Your task to perform on an android device: Search for Mexican restaurants on Maps Image 0: 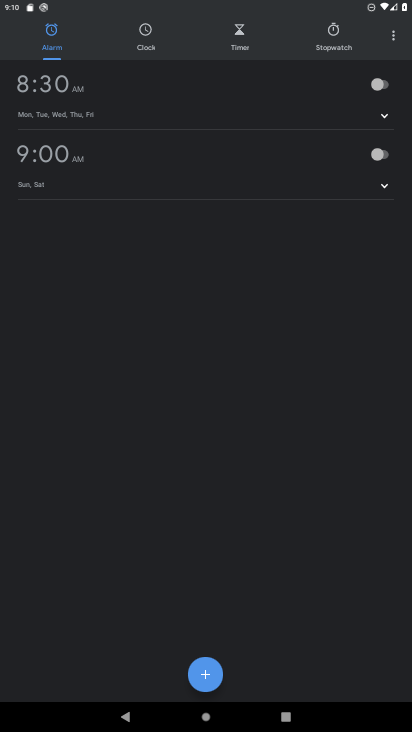
Step 0: press home button
Your task to perform on an android device: Search for Mexican restaurants on Maps Image 1: 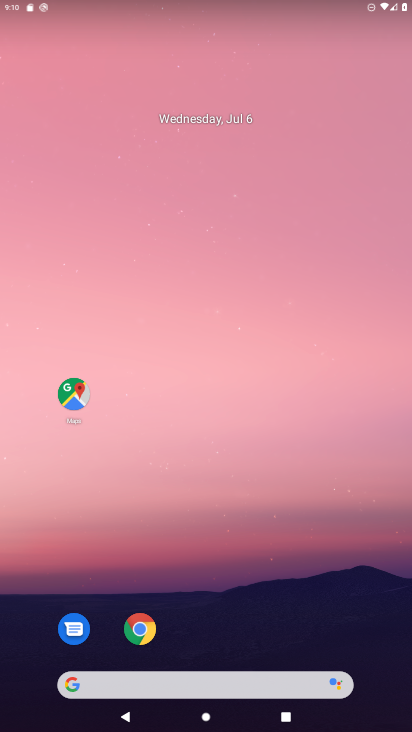
Step 1: drag from (235, 691) to (308, 154)
Your task to perform on an android device: Search for Mexican restaurants on Maps Image 2: 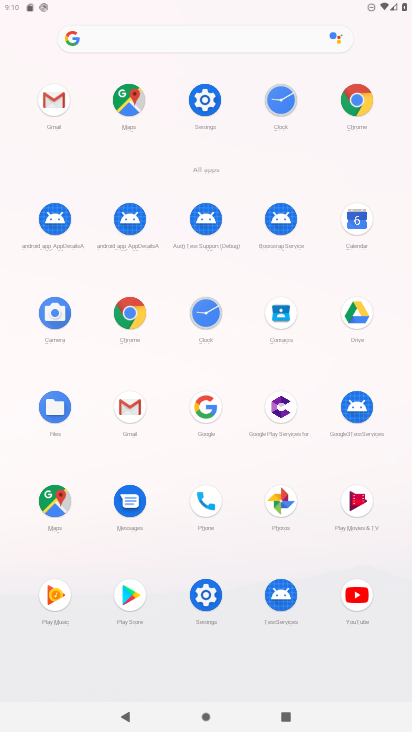
Step 2: click (52, 494)
Your task to perform on an android device: Search for Mexican restaurants on Maps Image 3: 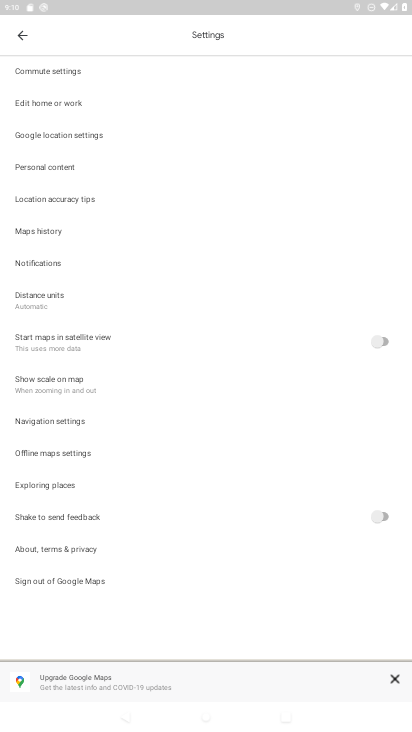
Step 3: press back button
Your task to perform on an android device: Search for Mexican restaurants on Maps Image 4: 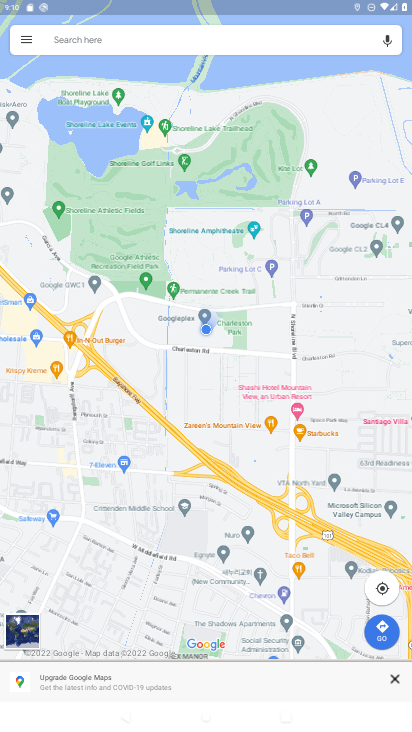
Step 4: click (154, 49)
Your task to perform on an android device: Search for Mexican restaurants on Maps Image 5: 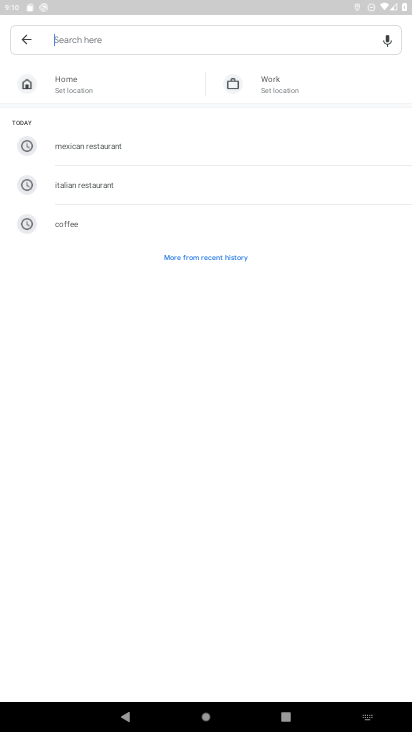
Step 5: click (163, 154)
Your task to perform on an android device: Search for Mexican restaurants on Maps Image 6: 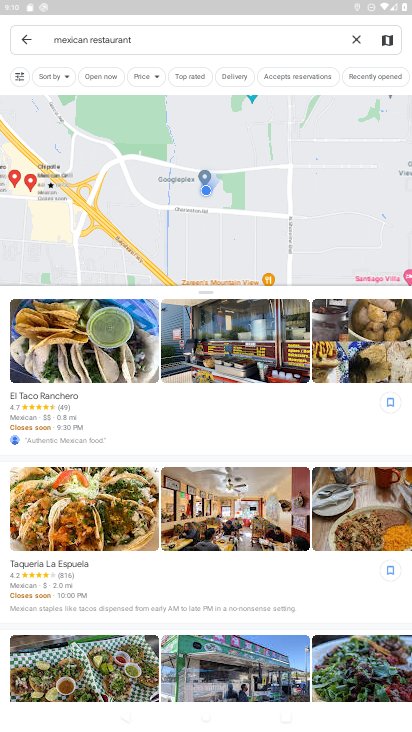
Step 6: task complete